Your task to perform on an android device: Empty the shopping cart on newegg.com. Search for razer huntsman on newegg.com, select the first entry, add it to the cart, then select checkout. Image 0: 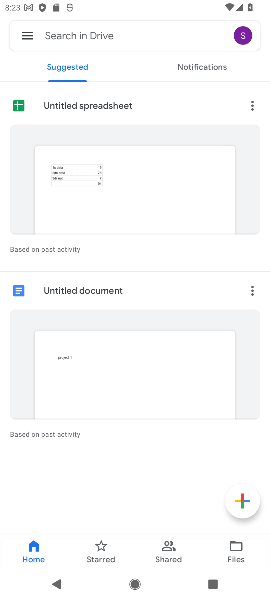
Step 0: press home button
Your task to perform on an android device: Empty the shopping cart on newegg.com. Search for razer huntsman on newegg.com, select the first entry, add it to the cart, then select checkout. Image 1: 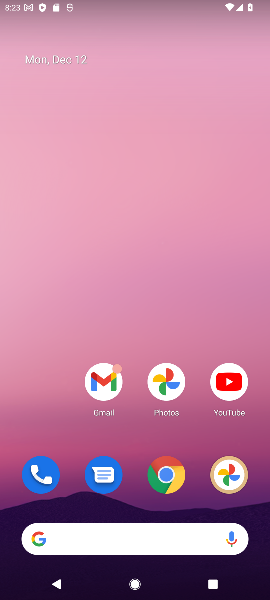
Step 1: click (168, 473)
Your task to perform on an android device: Empty the shopping cart on newegg.com. Search for razer huntsman on newegg.com, select the first entry, add it to the cart, then select checkout. Image 2: 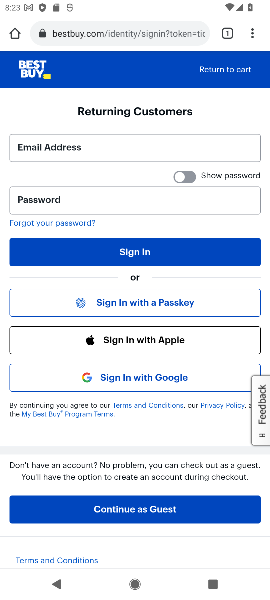
Step 2: click (160, 32)
Your task to perform on an android device: Empty the shopping cart on newegg.com. Search for razer huntsman on newegg.com, select the first entry, add it to the cart, then select checkout. Image 3: 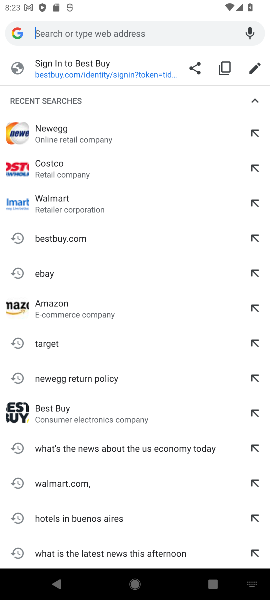
Step 3: type "newegg.com"
Your task to perform on an android device: Empty the shopping cart on newegg.com. Search for razer huntsman on newegg.com, select the first entry, add it to the cart, then select checkout. Image 4: 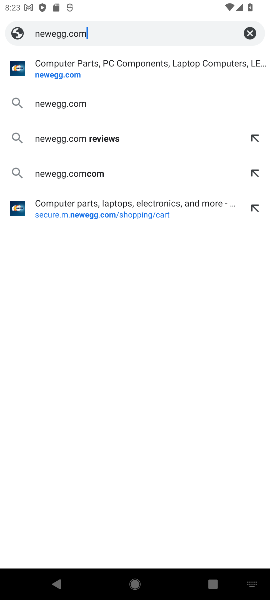
Step 4: click (65, 103)
Your task to perform on an android device: Empty the shopping cart on newegg.com. Search for razer huntsman on newegg.com, select the first entry, add it to the cart, then select checkout. Image 5: 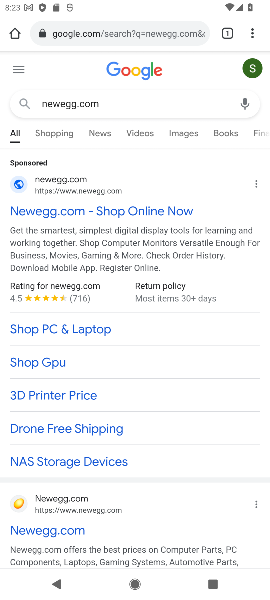
Step 5: click (62, 530)
Your task to perform on an android device: Empty the shopping cart on newegg.com. Search for razer huntsman on newegg.com, select the first entry, add it to the cart, then select checkout. Image 6: 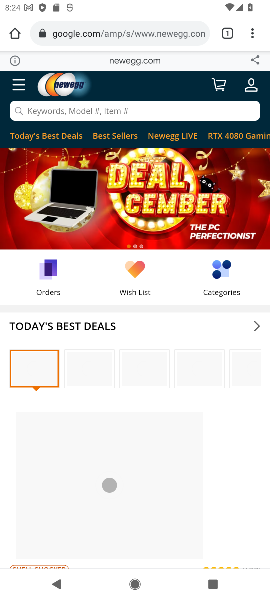
Step 6: click (219, 81)
Your task to perform on an android device: Empty the shopping cart on newegg.com. Search for razer huntsman on newegg.com, select the first entry, add it to the cart, then select checkout. Image 7: 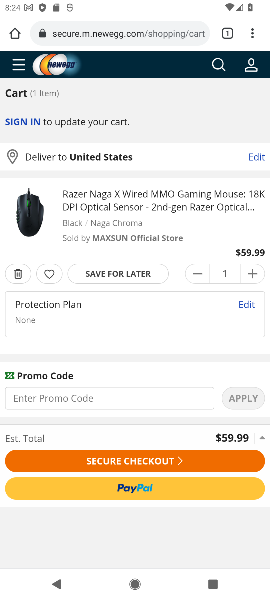
Step 7: click (16, 274)
Your task to perform on an android device: Empty the shopping cart on newegg.com. Search for razer huntsman on newegg.com, select the first entry, add it to the cart, then select checkout. Image 8: 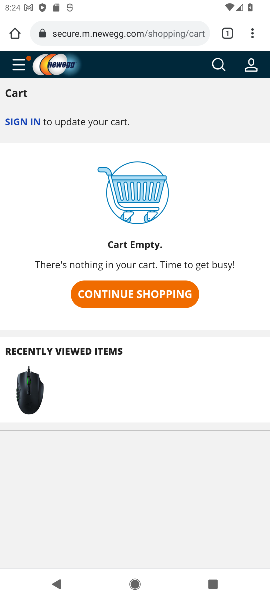
Step 8: click (155, 295)
Your task to perform on an android device: Empty the shopping cart on newegg.com. Search for razer huntsman on newegg.com, select the first entry, add it to the cart, then select checkout. Image 9: 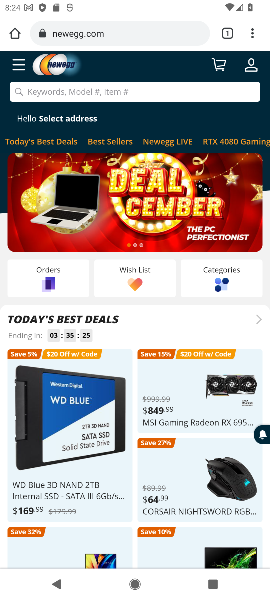
Step 9: click (165, 91)
Your task to perform on an android device: Empty the shopping cart on newegg.com. Search for razer huntsman on newegg.com, select the first entry, add it to the cart, then select checkout. Image 10: 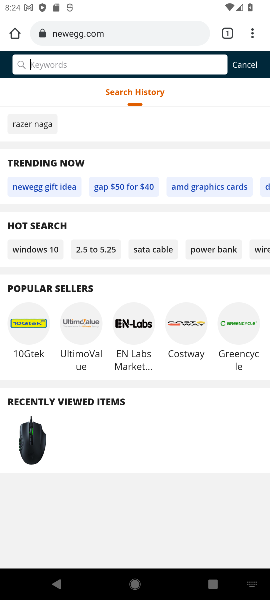
Step 10: type "razer huntsman"
Your task to perform on an android device: Empty the shopping cart on newegg.com. Search for razer huntsman on newegg.com, select the first entry, add it to the cart, then select checkout. Image 11: 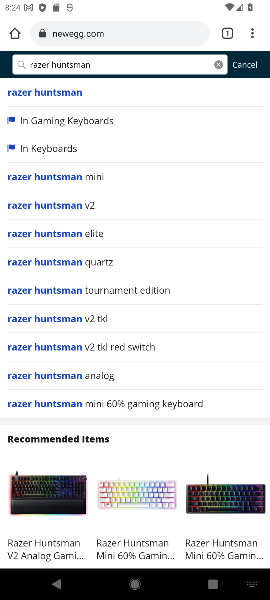
Step 11: click (73, 94)
Your task to perform on an android device: Empty the shopping cart on newegg.com. Search for razer huntsman on newegg.com, select the first entry, add it to the cart, then select checkout. Image 12: 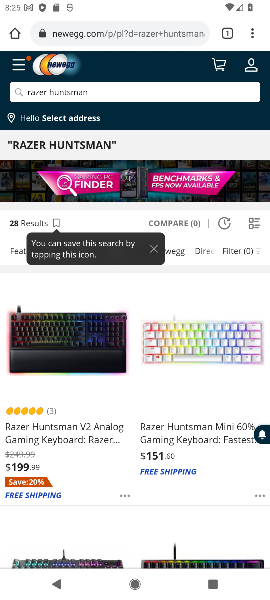
Step 12: click (72, 431)
Your task to perform on an android device: Empty the shopping cart on newegg.com. Search for razer huntsman on newegg.com, select the first entry, add it to the cart, then select checkout. Image 13: 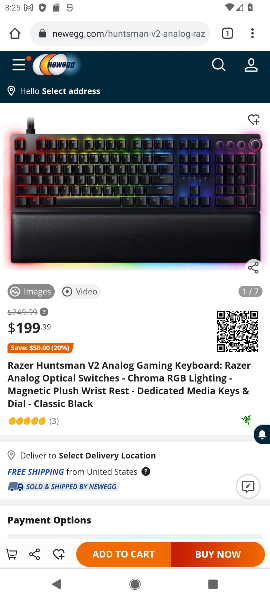
Step 13: click (115, 552)
Your task to perform on an android device: Empty the shopping cart on newegg.com. Search for razer huntsman on newegg.com, select the first entry, add it to the cart, then select checkout. Image 14: 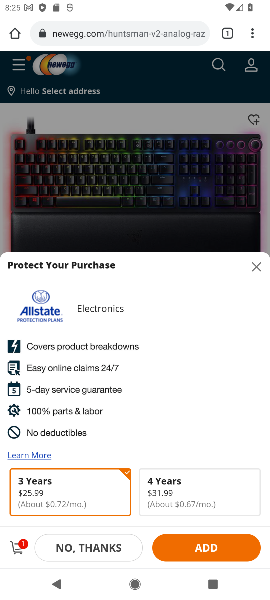
Step 14: click (10, 543)
Your task to perform on an android device: Empty the shopping cart on newegg.com. Search for razer huntsman on newegg.com, select the first entry, add it to the cart, then select checkout. Image 15: 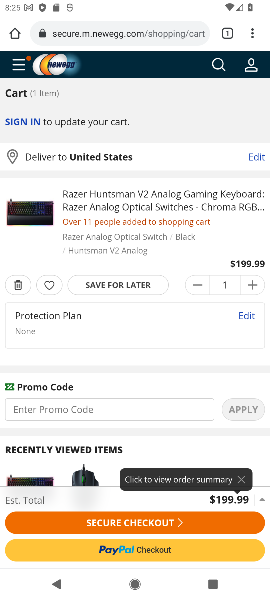
Step 15: click (132, 520)
Your task to perform on an android device: Empty the shopping cart on newegg.com. Search for razer huntsman on newegg.com, select the first entry, add it to the cart, then select checkout. Image 16: 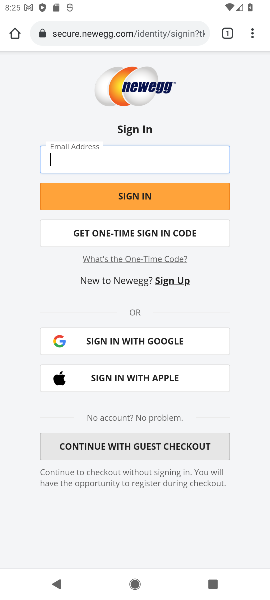
Step 16: task complete